Your task to perform on an android device: Open sound settings Image 0: 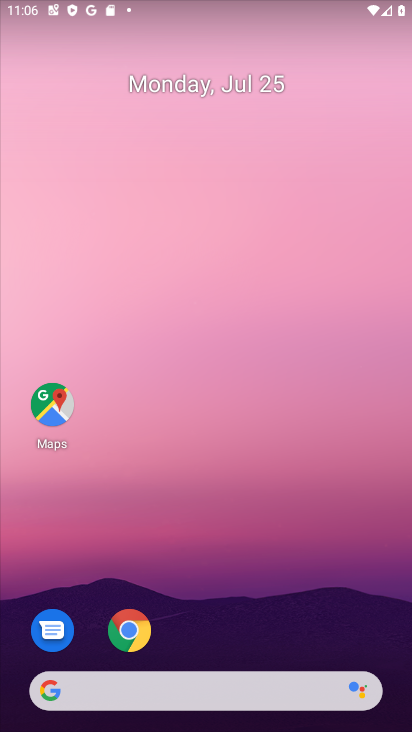
Step 0: drag from (277, 645) to (294, 33)
Your task to perform on an android device: Open sound settings Image 1: 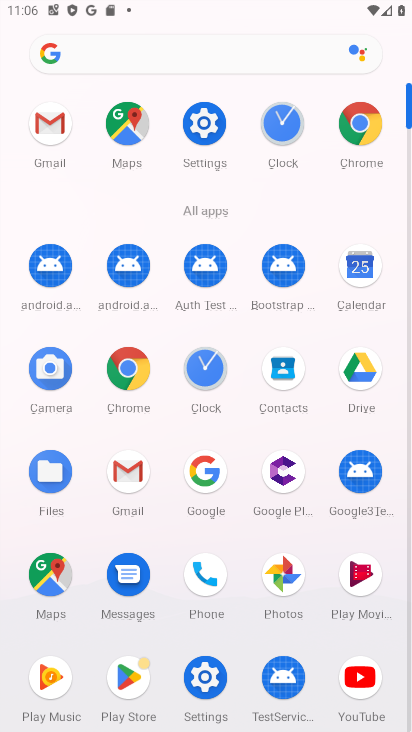
Step 1: click (211, 120)
Your task to perform on an android device: Open sound settings Image 2: 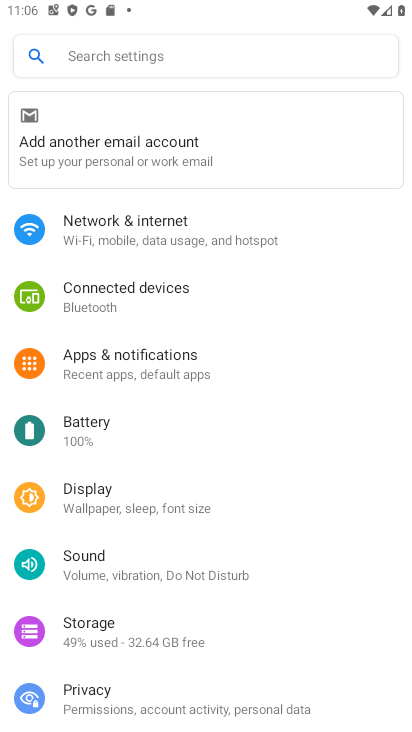
Step 2: click (96, 565)
Your task to perform on an android device: Open sound settings Image 3: 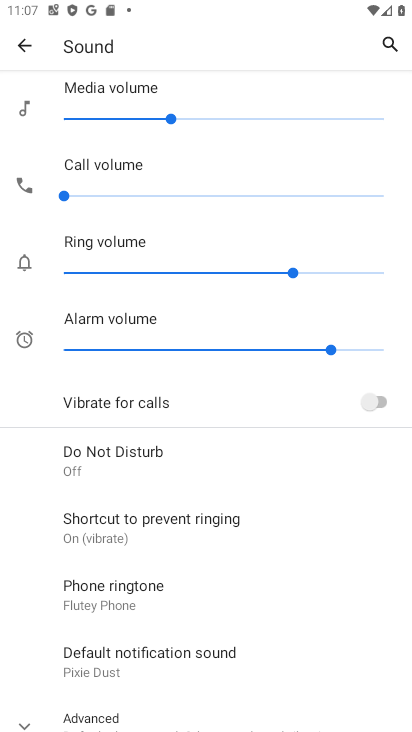
Step 3: task complete